Your task to perform on an android device: search for starred emails in the gmail app Image 0: 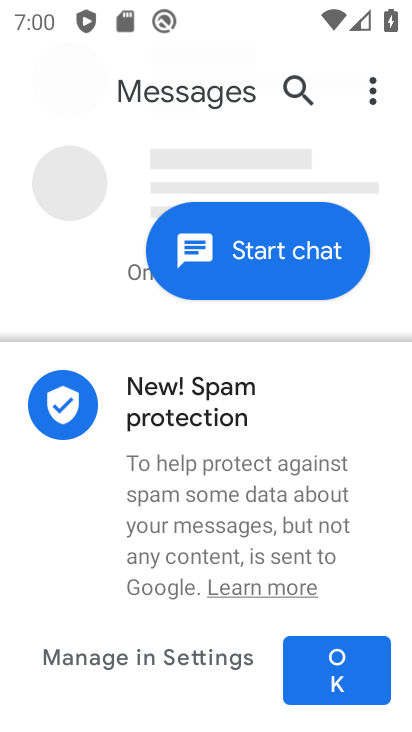
Step 0: press home button
Your task to perform on an android device: search for starred emails in the gmail app Image 1: 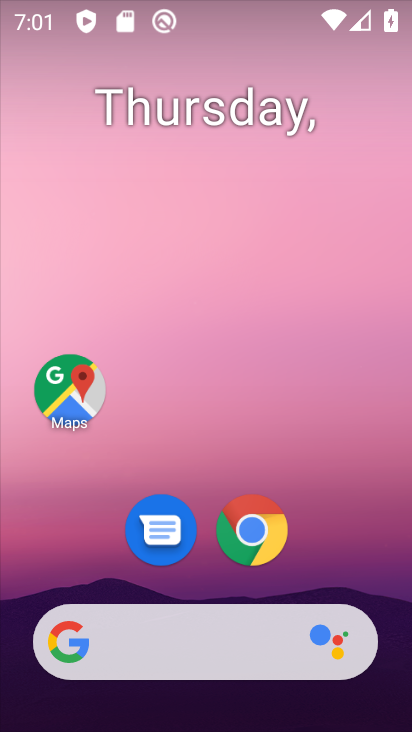
Step 1: drag from (192, 466) to (215, 274)
Your task to perform on an android device: search for starred emails in the gmail app Image 2: 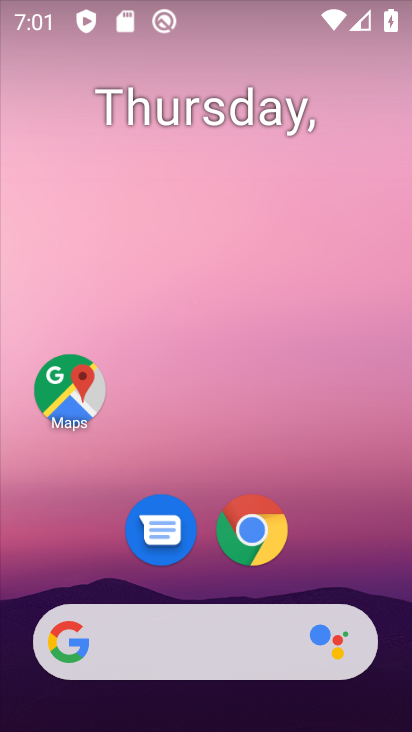
Step 2: drag from (295, 663) to (138, 173)
Your task to perform on an android device: search for starred emails in the gmail app Image 3: 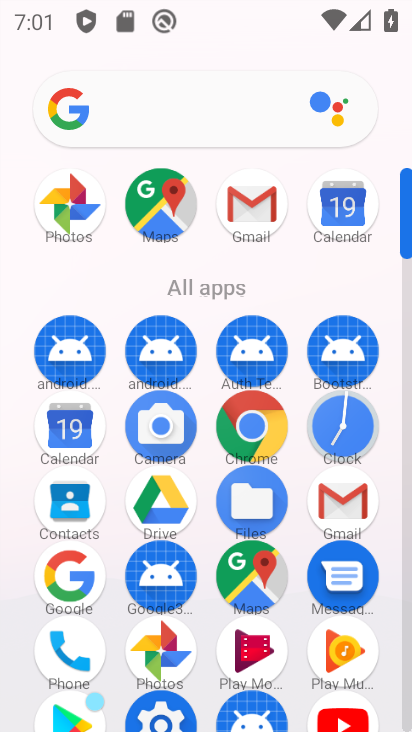
Step 3: click (239, 204)
Your task to perform on an android device: search for starred emails in the gmail app Image 4: 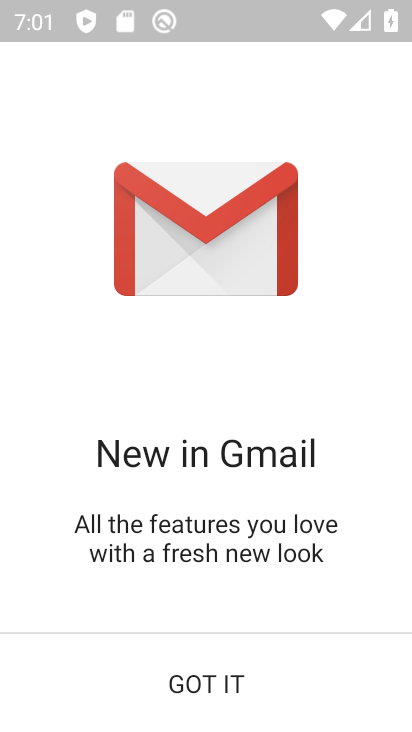
Step 4: click (249, 666)
Your task to perform on an android device: search for starred emails in the gmail app Image 5: 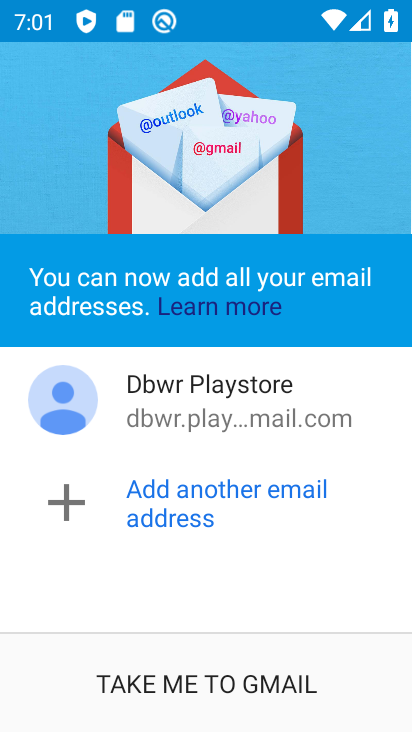
Step 5: click (277, 667)
Your task to perform on an android device: search for starred emails in the gmail app Image 6: 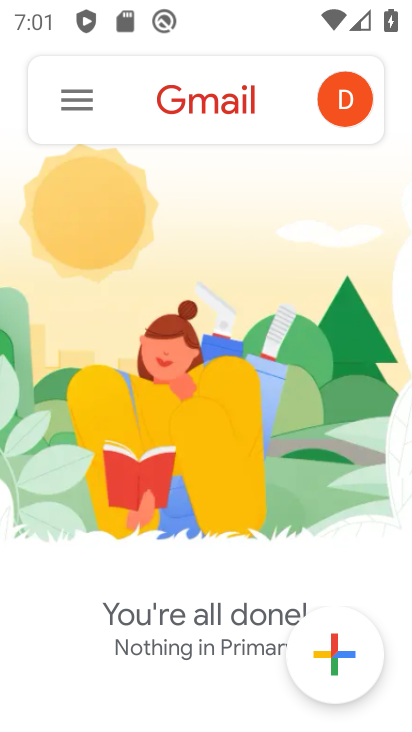
Step 6: click (60, 102)
Your task to perform on an android device: search for starred emails in the gmail app Image 7: 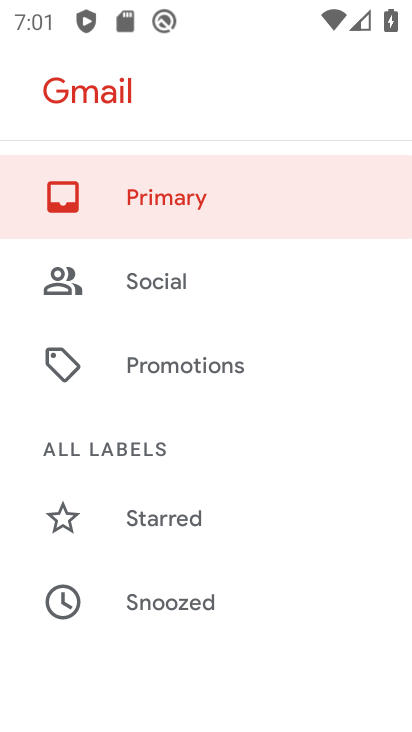
Step 7: click (203, 520)
Your task to perform on an android device: search for starred emails in the gmail app Image 8: 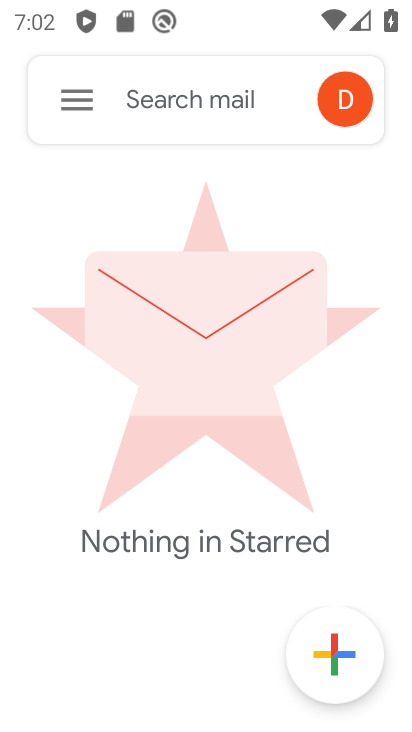
Step 8: task complete